Your task to perform on an android device: open app "LiveIn - Share Your Moment" Image 0: 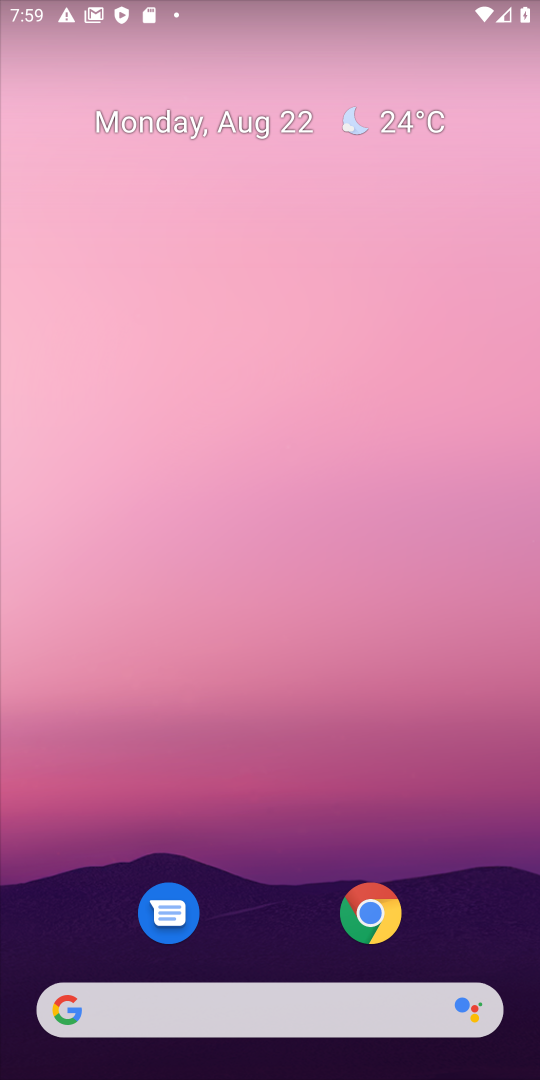
Step 0: drag from (278, 987) to (395, 87)
Your task to perform on an android device: open app "LiveIn - Share Your Moment" Image 1: 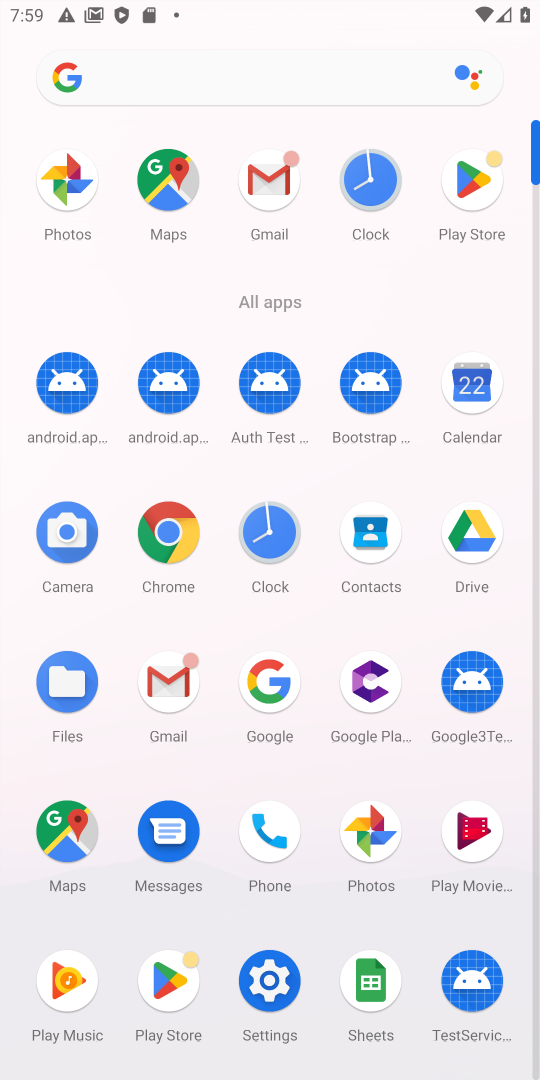
Step 1: click (455, 171)
Your task to perform on an android device: open app "LiveIn - Share Your Moment" Image 2: 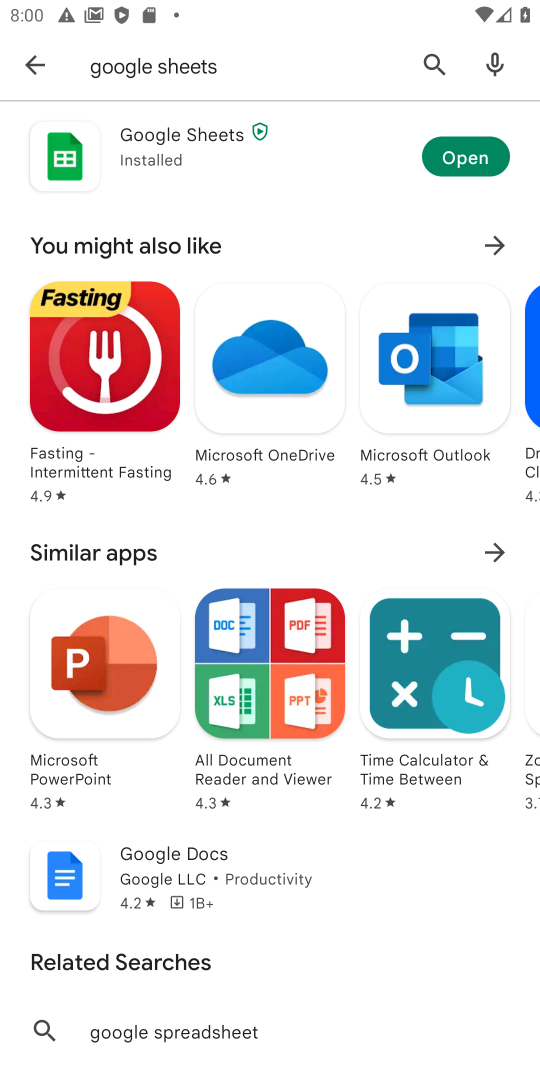
Step 2: click (430, 59)
Your task to perform on an android device: open app "LiveIn - Share Your Moment" Image 3: 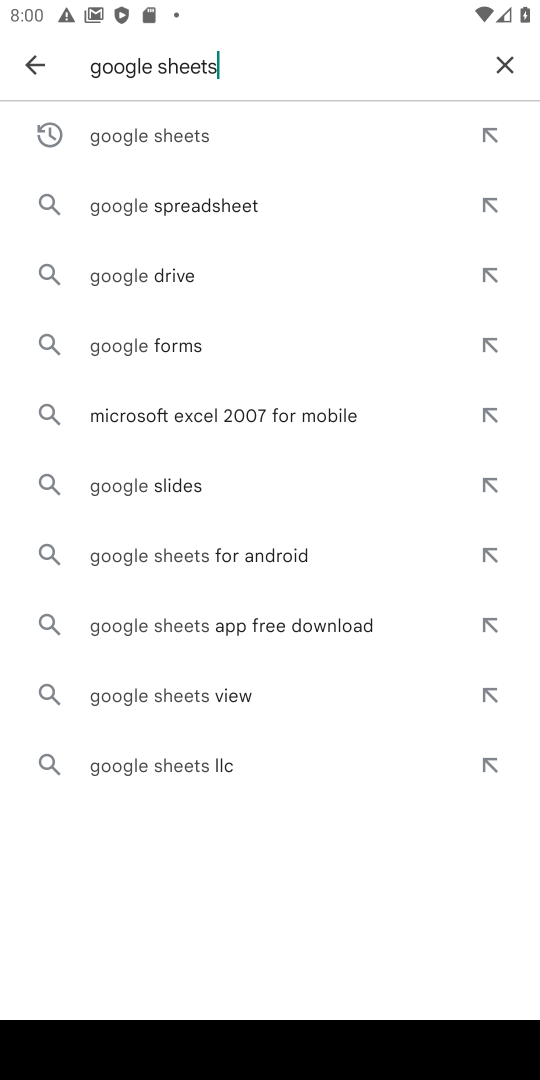
Step 3: click (516, 56)
Your task to perform on an android device: open app "LiveIn - Share Your Moment" Image 4: 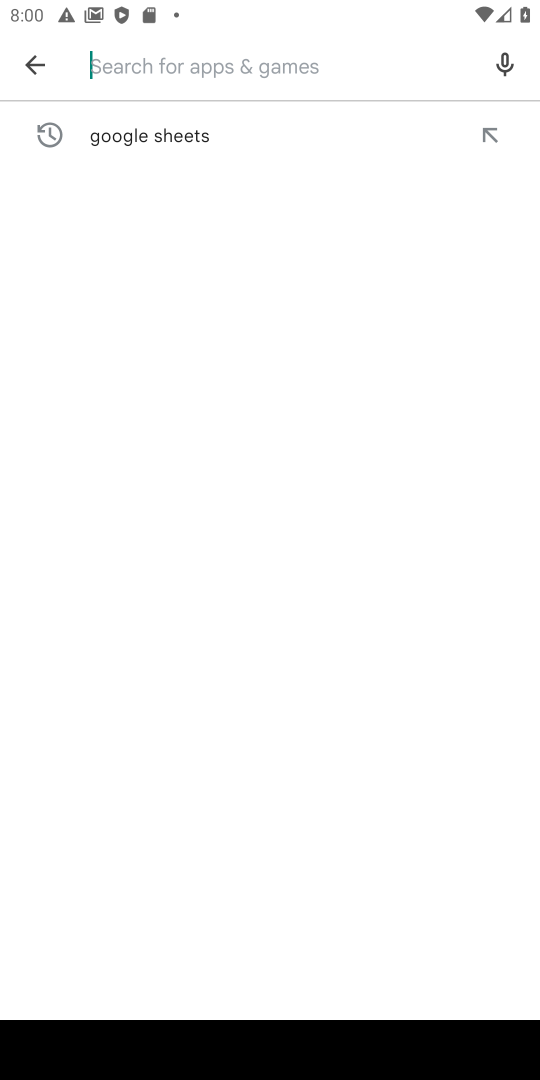
Step 4: type "livein - share your"
Your task to perform on an android device: open app "LiveIn - Share Your Moment" Image 5: 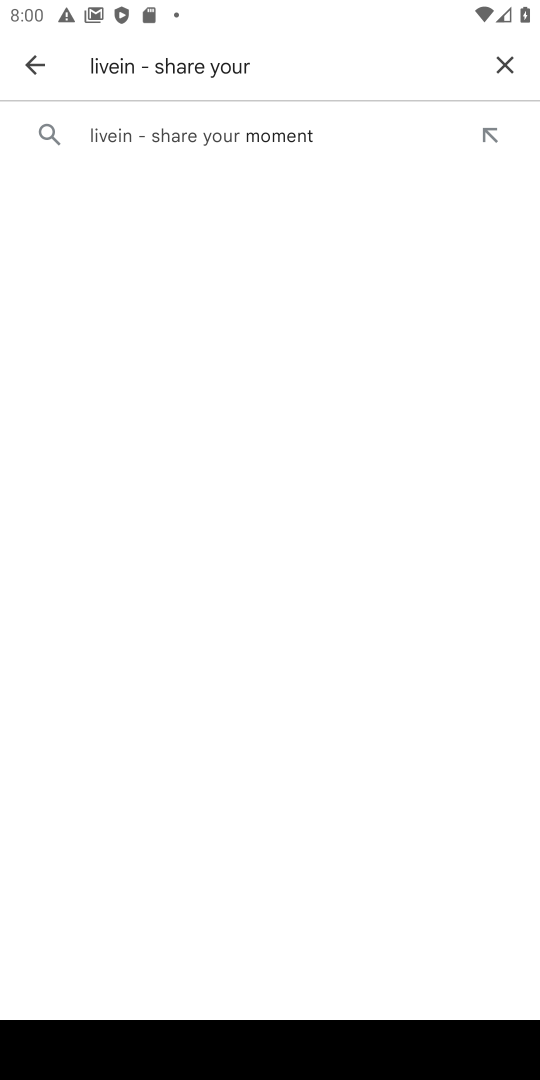
Step 5: click (228, 157)
Your task to perform on an android device: open app "LiveIn - Share Your Moment" Image 6: 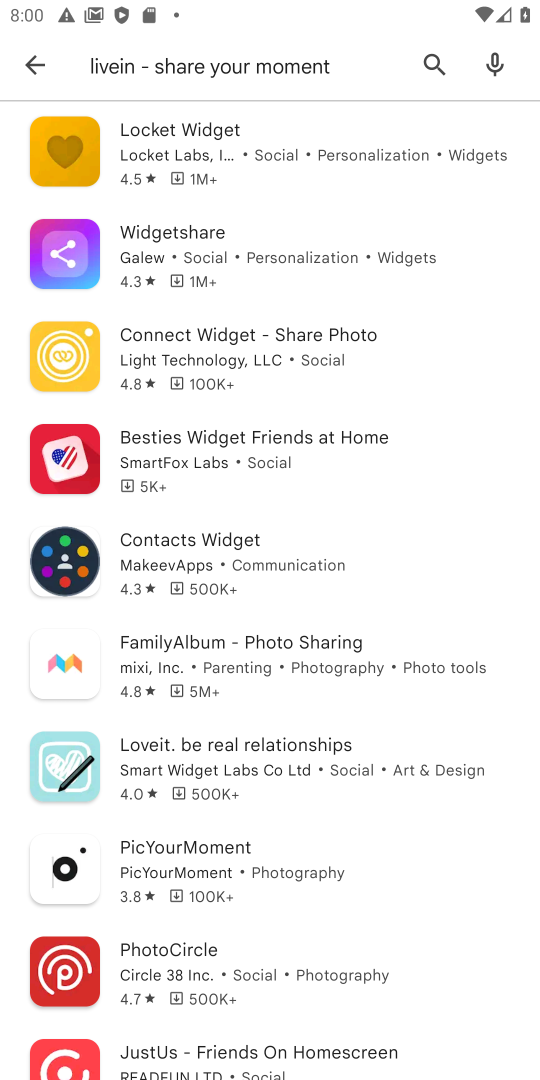
Step 6: task complete